Your task to perform on an android device: change notifications settings Image 0: 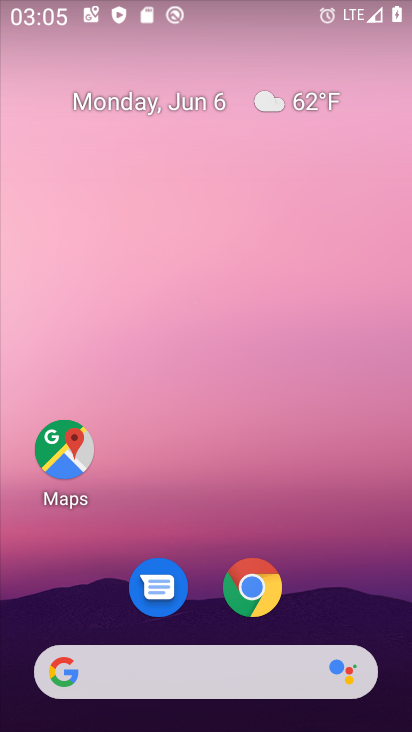
Step 0: drag from (327, 547) to (266, 44)
Your task to perform on an android device: change notifications settings Image 1: 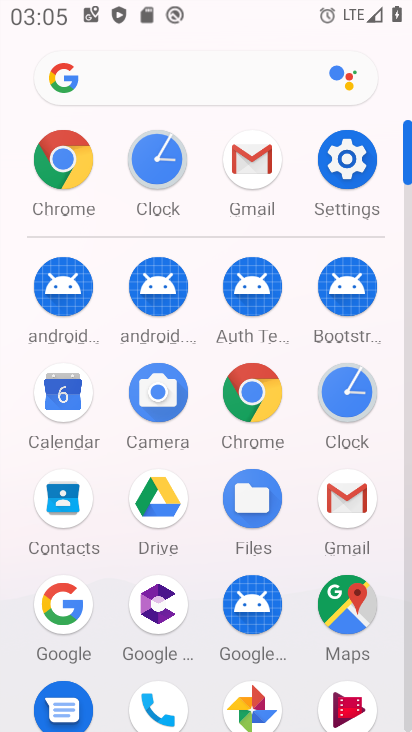
Step 1: drag from (20, 650) to (24, 246)
Your task to perform on an android device: change notifications settings Image 2: 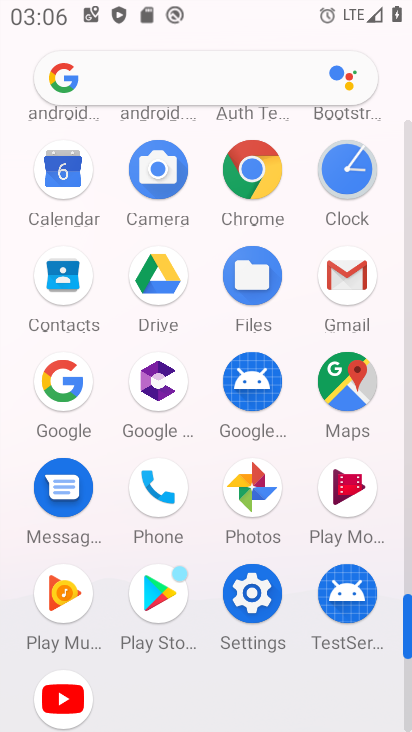
Step 2: click (249, 588)
Your task to perform on an android device: change notifications settings Image 3: 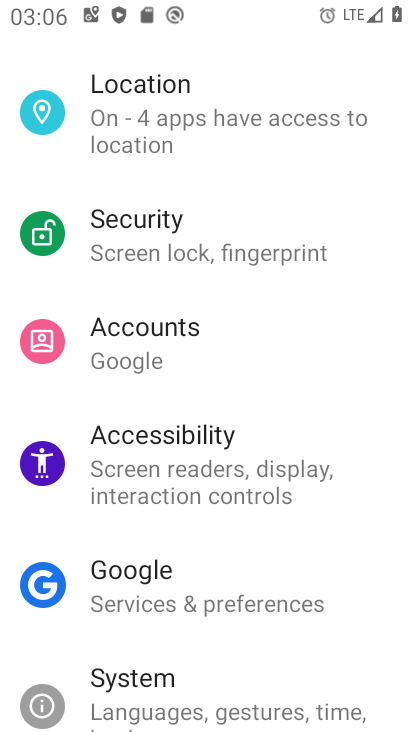
Step 3: drag from (280, 244) to (284, 684)
Your task to perform on an android device: change notifications settings Image 4: 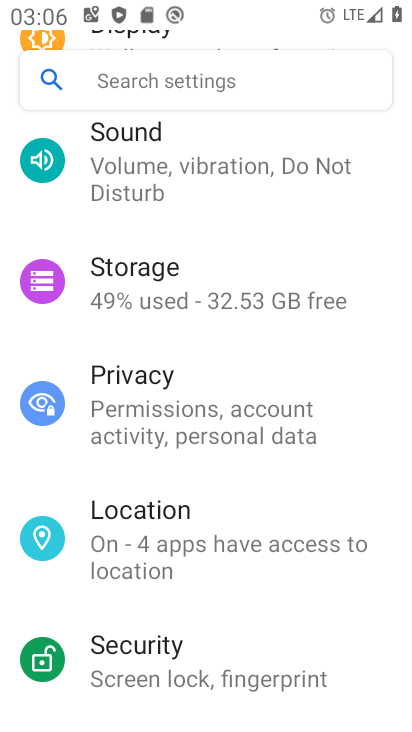
Step 4: drag from (280, 360) to (307, 662)
Your task to perform on an android device: change notifications settings Image 5: 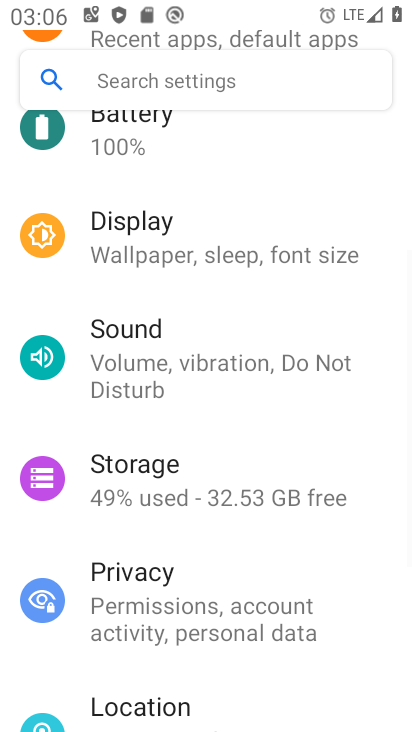
Step 5: drag from (279, 303) to (280, 660)
Your task to perform on an android device: change notifications settings Image 6: 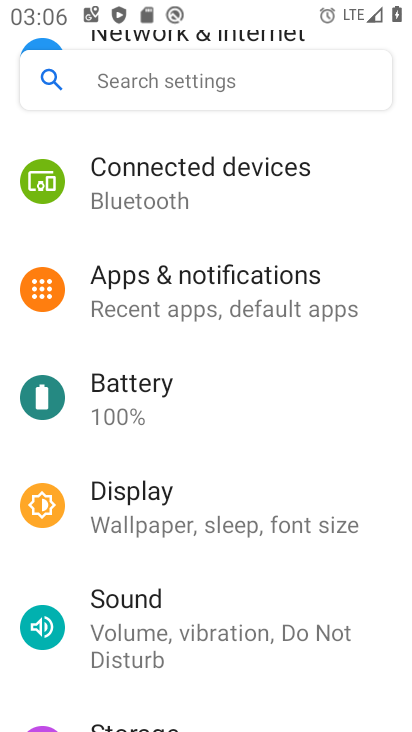
Step 6: click (215, 303)
Your task to perform on an android device: change notifications settings Image 7: 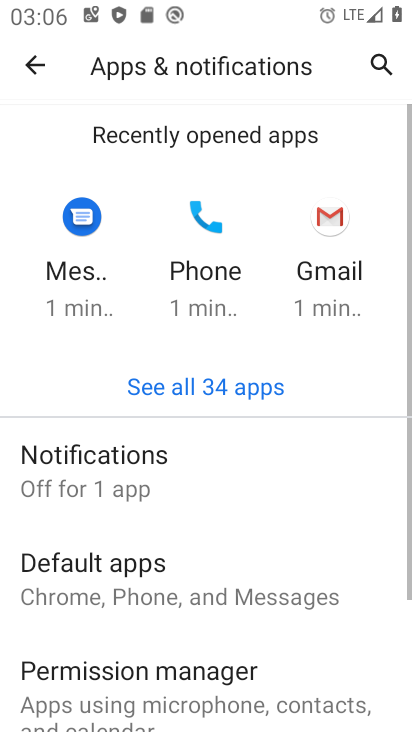
Step 7: click (180, 472)
Your task to perform on an android device: change notifications settings Image 8: 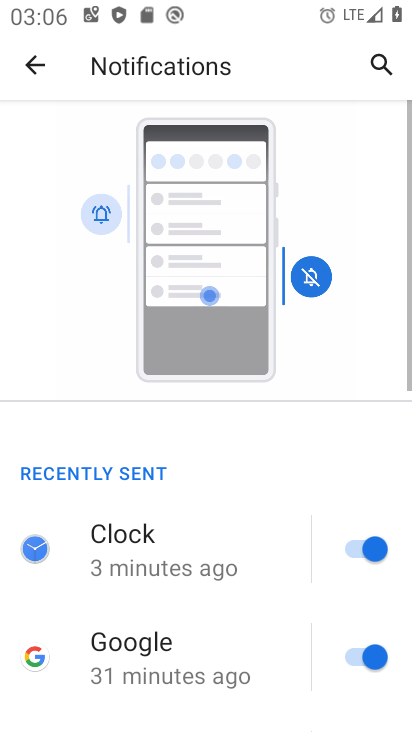
Step 8: drag from (237, 635) to (239, 244)
Your task to perform on an android device: change notifications settings Image 9: 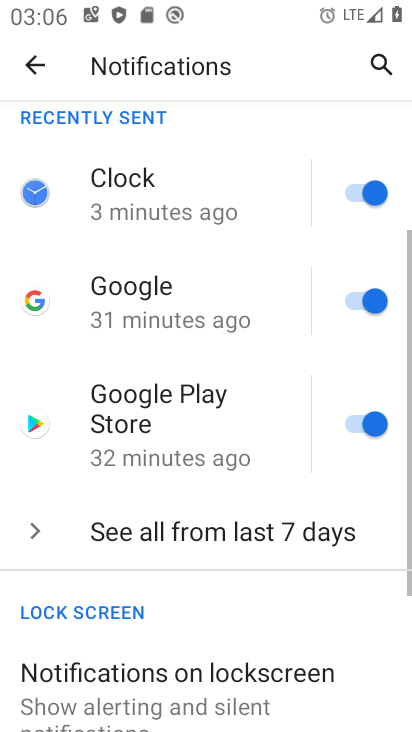
Step 9: drag from (256, 597) to (266, 198)
Your task to perform on an android device: change notifications settings Image 10: 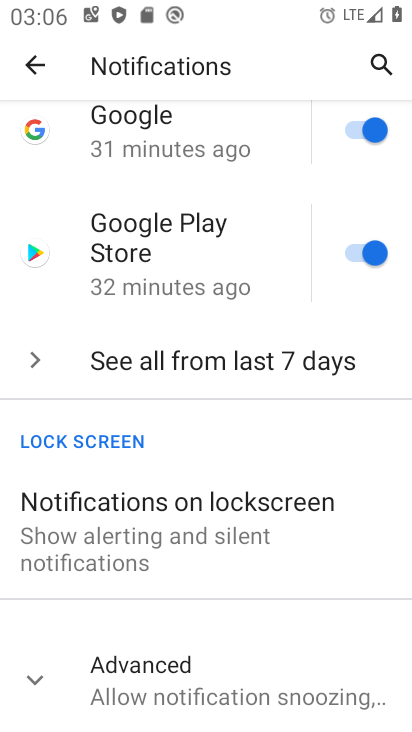
Step 10: click (40, 671)
Your task to perform on an android device: change notifications settings Image 11: 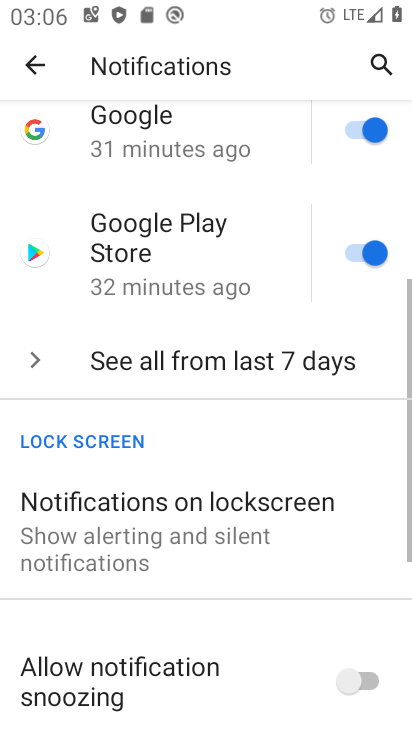
Step 11: task complete